Your task to perform on an android device: change text size in settings app Image 0: 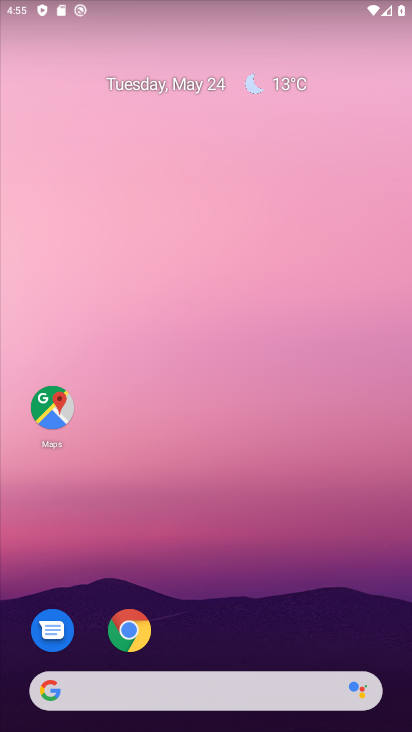
Step 0: drag from (215, 550) to (268, 14)
Your task to perform on an android device: change text size in settings app Image 1: 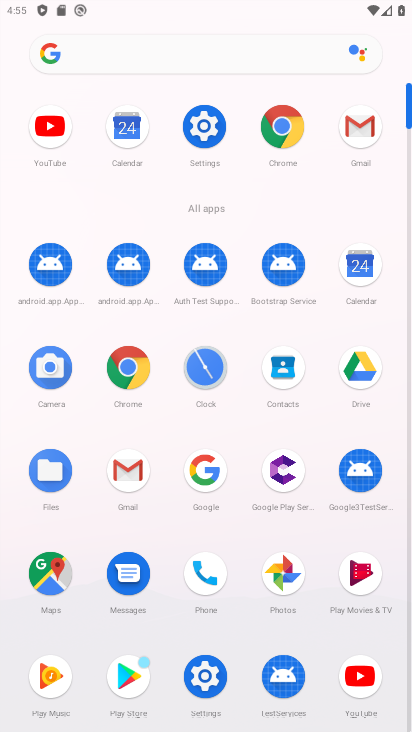
Step 1: click (204, 483)
Your task to perform on an android device: change text size in settings app Image 2: 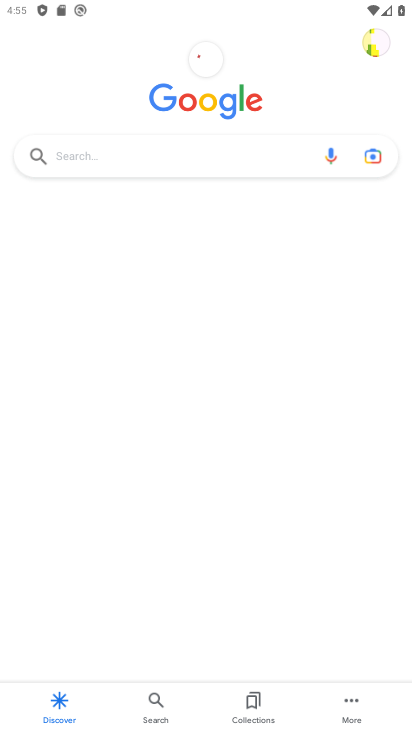
Step 2: click (156, 156)
Your task to perform on an android device: change text size in settings app Image 3: 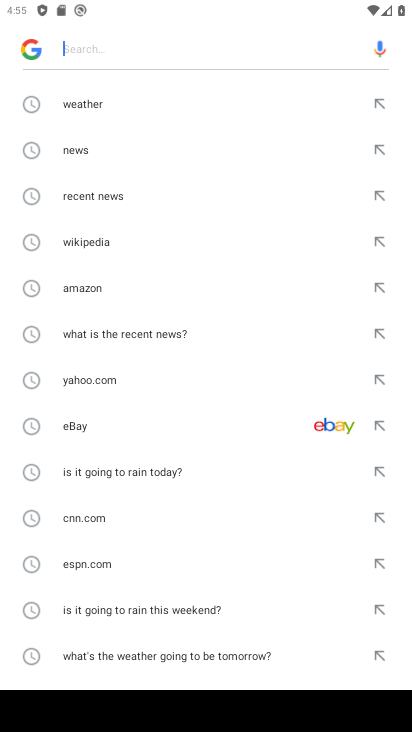
Step 3: press home button
Your task to perform on an android device: change text size in settings app Image 4: 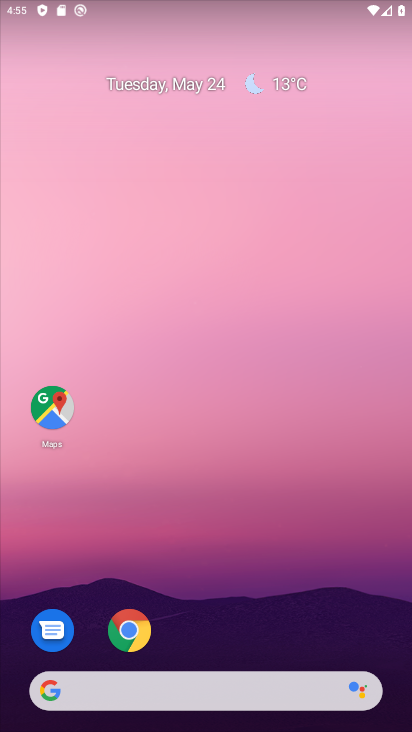
Step 4: drag from (226, 569) to (205, 190)
Your task to perform on an android device: change text size in settings app Image 5: 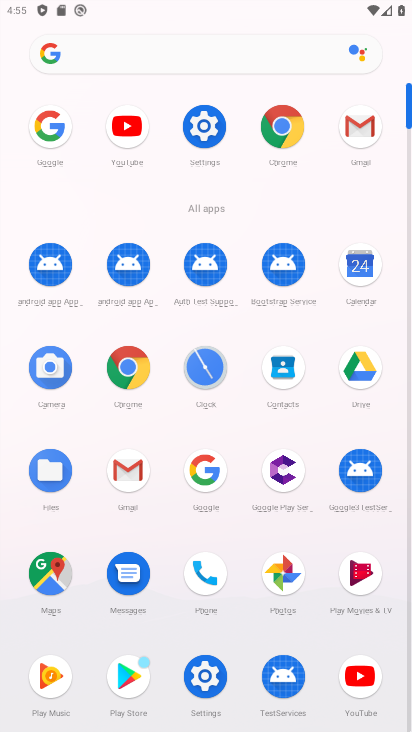
Step 5: click (401, 70)
Your task to perform on an android device: change text size in settings app Image 6: 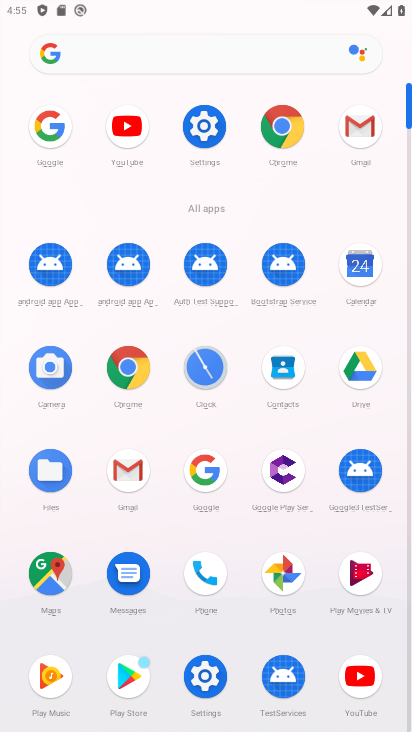
Step 6: drag from (165, 139) to (233, 15)
Your task to perform on an android device: change text size in settings app Image 7: 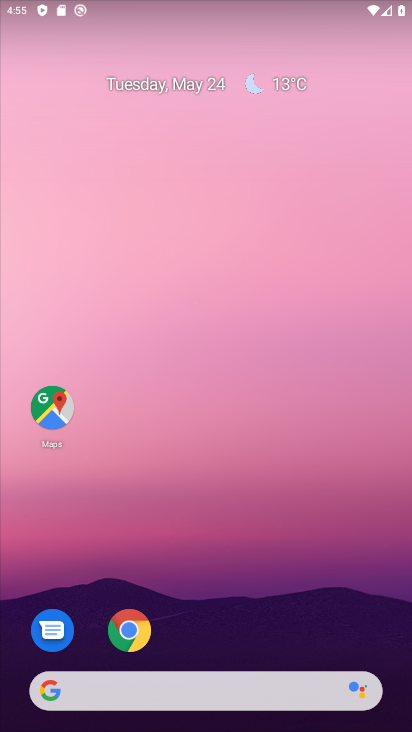
Step 7: drag from (214, 616) to (245, 98)
Your task to perform on an android device: change text size in settings app Image 8: 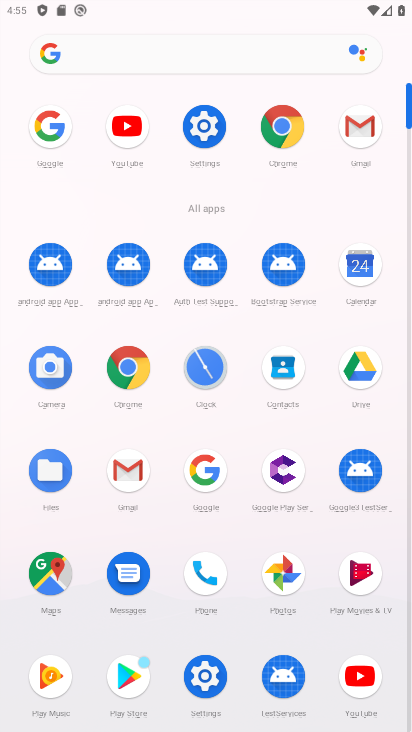
Step 8: click (208, 129)
Your task to perform on an android device: change text size in settings app Image 9: 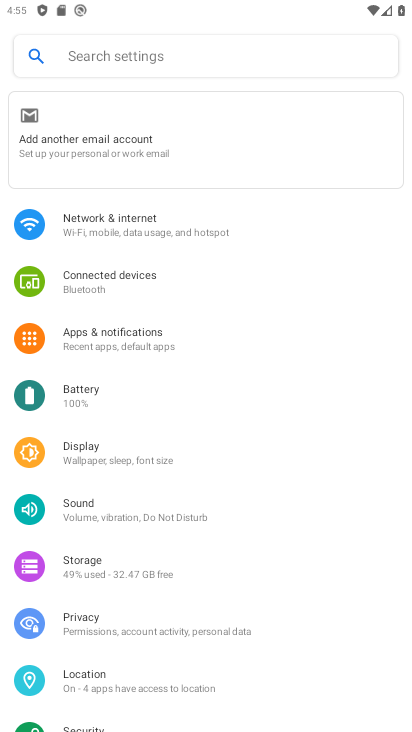
Step 9: click (99, 472)
Your task to perform on an android device: change text size in settings app Image 10: 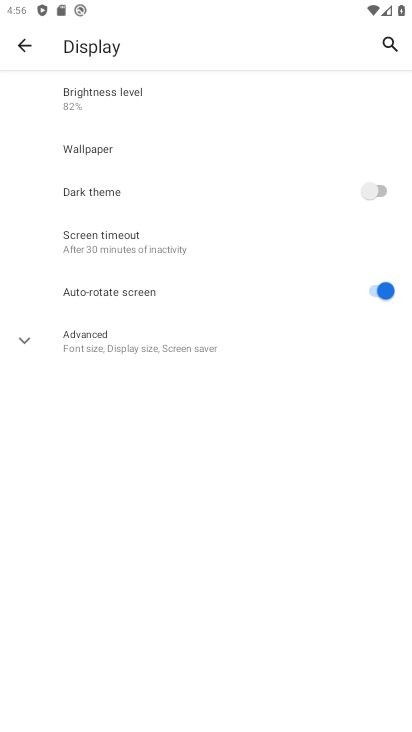
Step 10: click (91, 342)
Your task to perform on an android device: change text size in settings app Image 11: 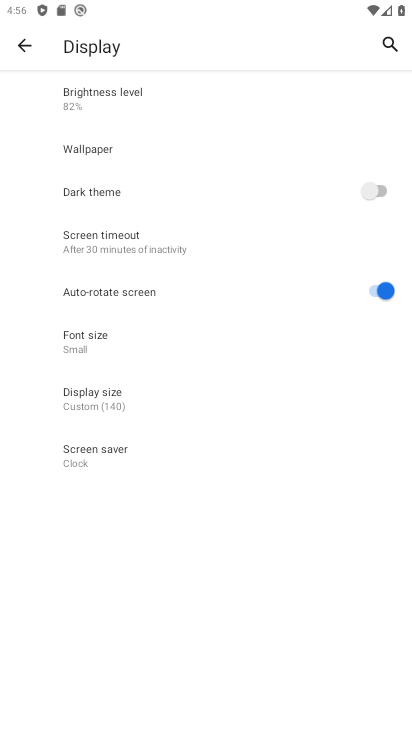
Step 11: click (90, 333)
Your task to perform on an android device: change text size in settings app Image 12: 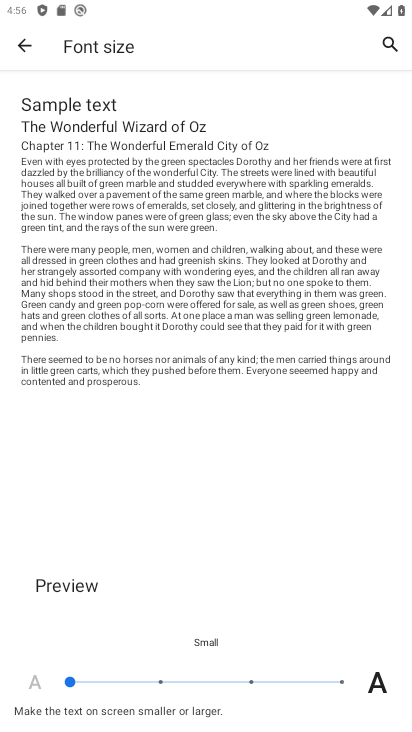
Step 12: click (158, 686)
Your task to perform on an android device: change text size in settings app Image 13: 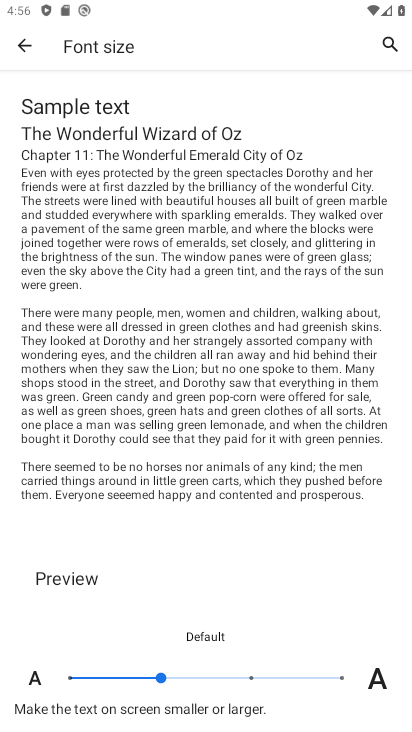
Step 13: task complete